Your task to perform on an android device: Open battery settings Image 0: 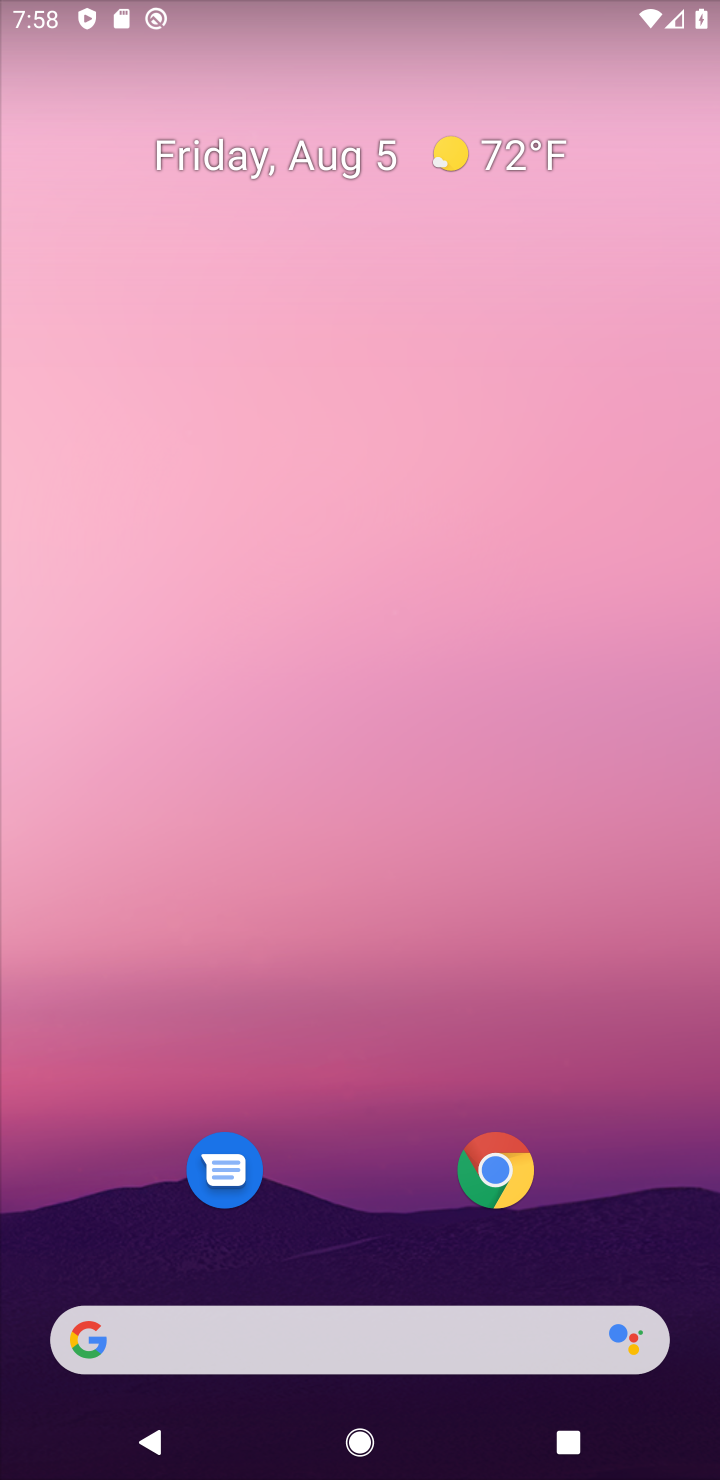
Step 0: drag from (654, 1237) to (563, 309)
Your task to perform on an android device: Open battery settings Image 1: 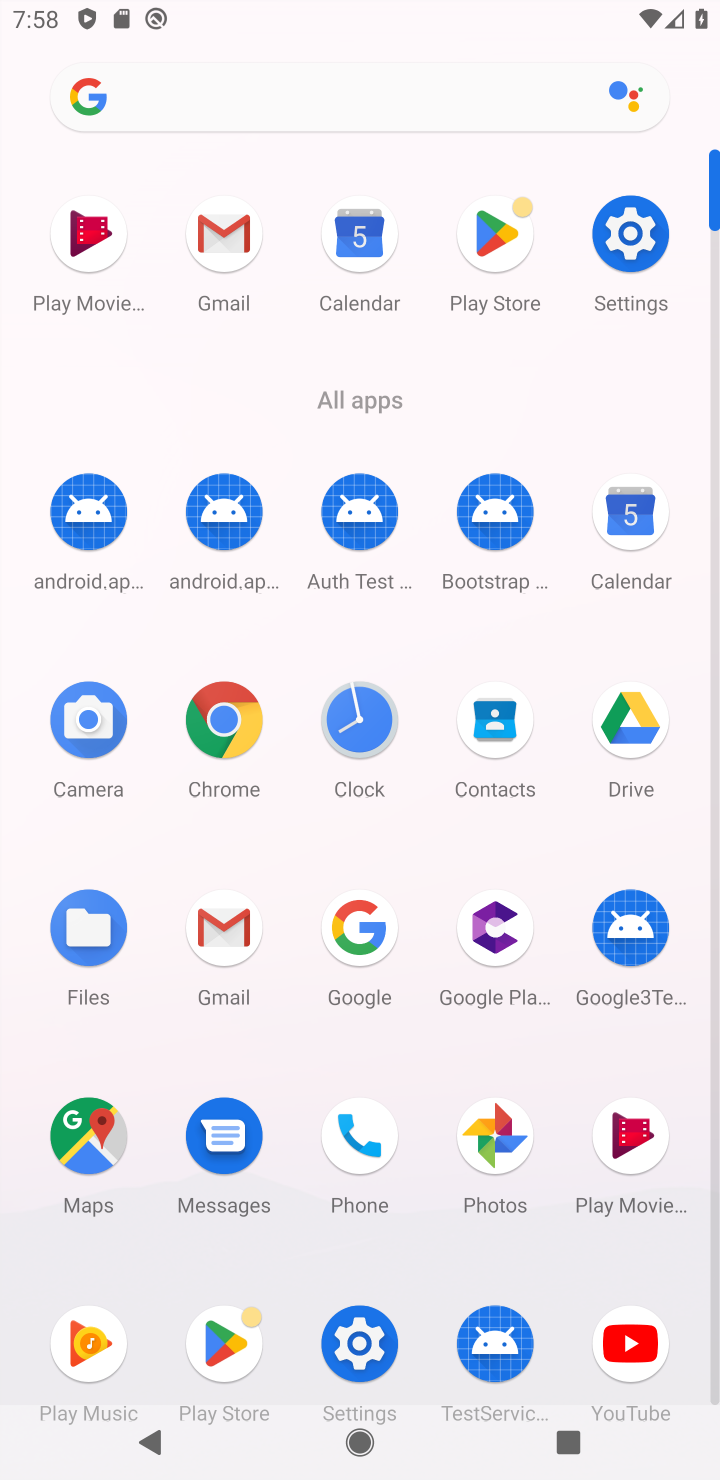
Step 1: click (355, 1345)
Your task to perform on an android device: Open battery settings Image 2: 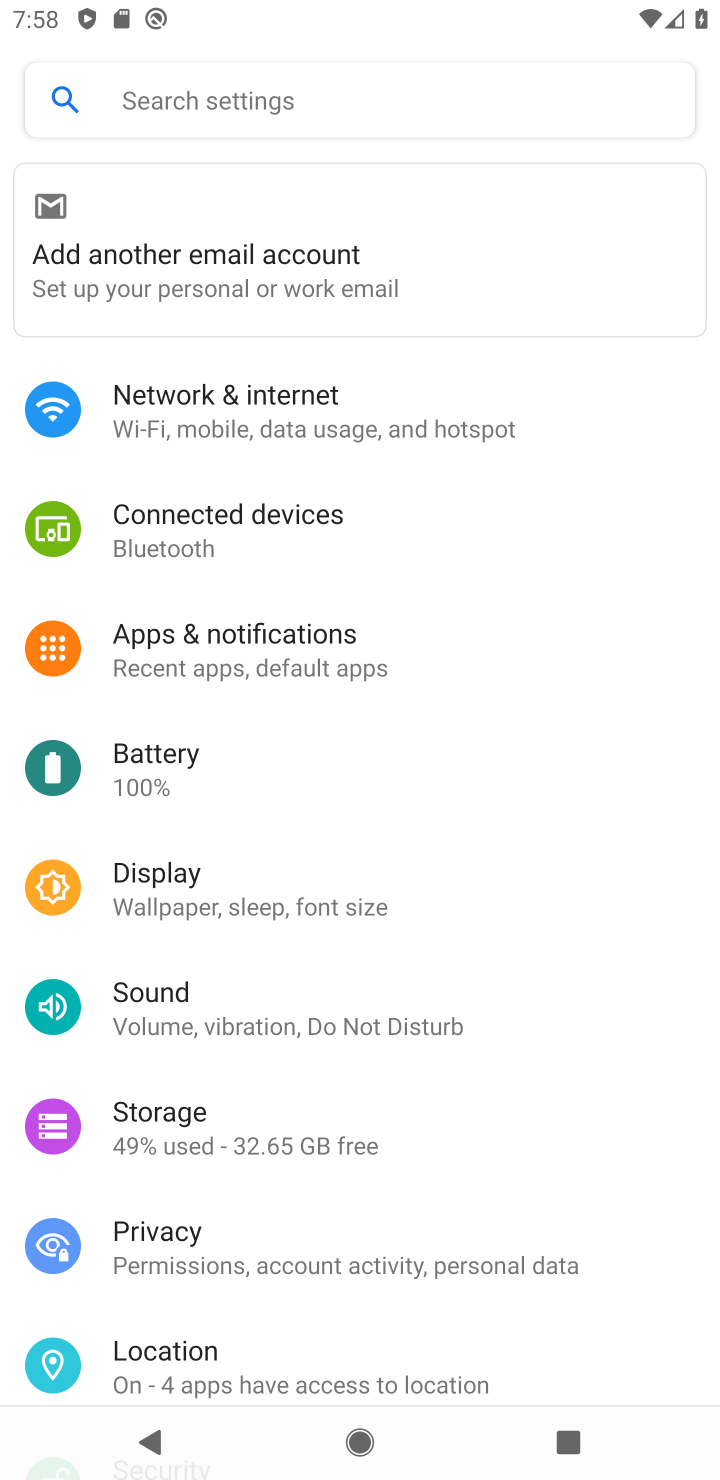
Step 2: click (144, 751)
Your task to perform on an android device: Open battery settings Image 3: 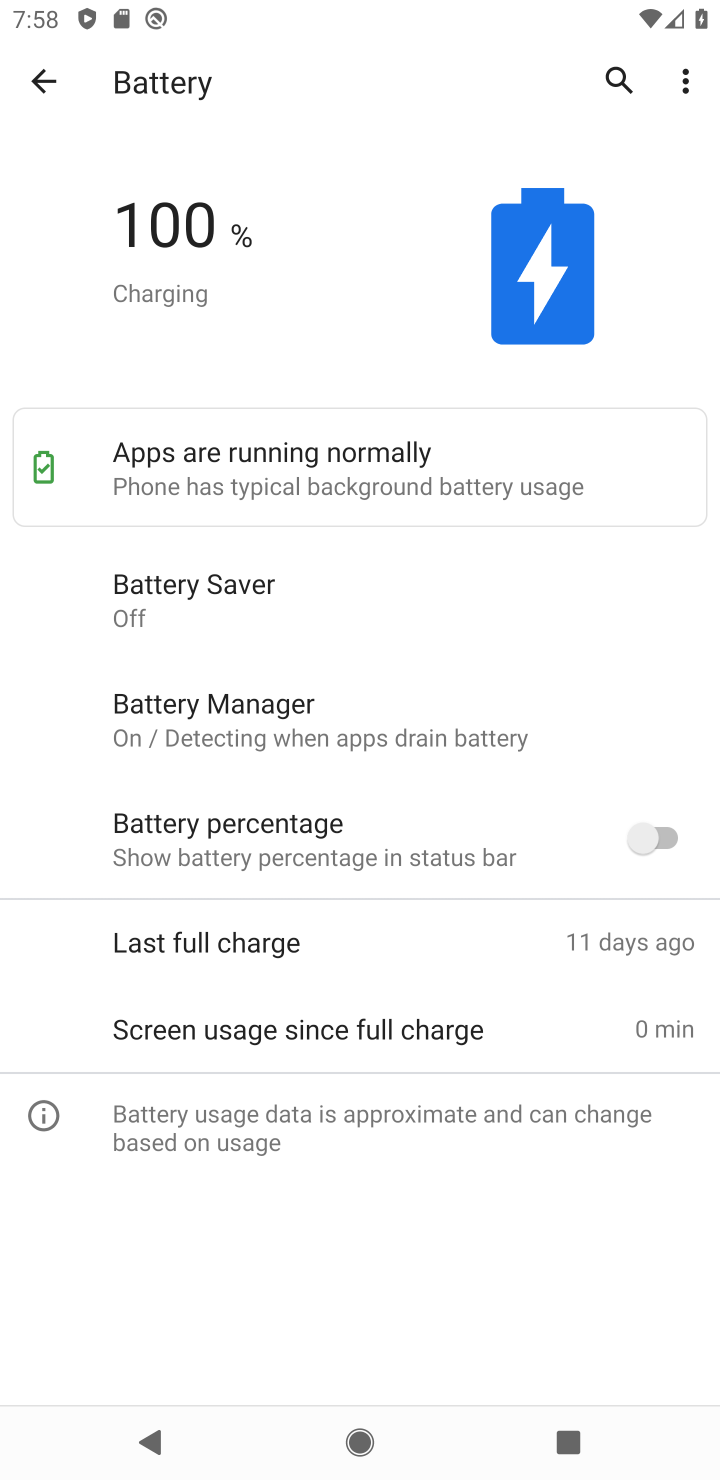
Step 3: task complete